Your task to perform on an android device: move an email to a new category in the gmail app Image 0: 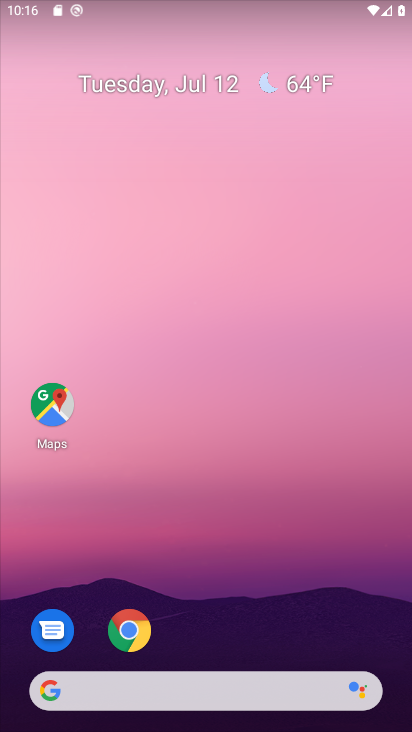
Step 0: drag from (224, 668) to (221, 124)
Your task to perform on an android device: move an email to a new category in the gmail app Image 1: 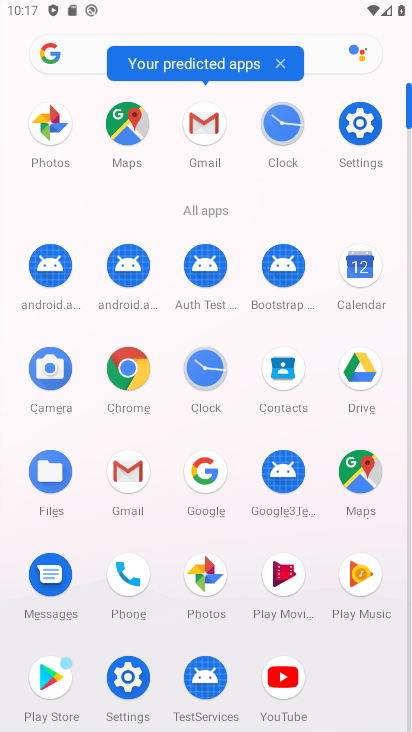
Step 1: click (120, 488)
Your task to perform on an android device: move an email to a new category in the gmail app Image 2: 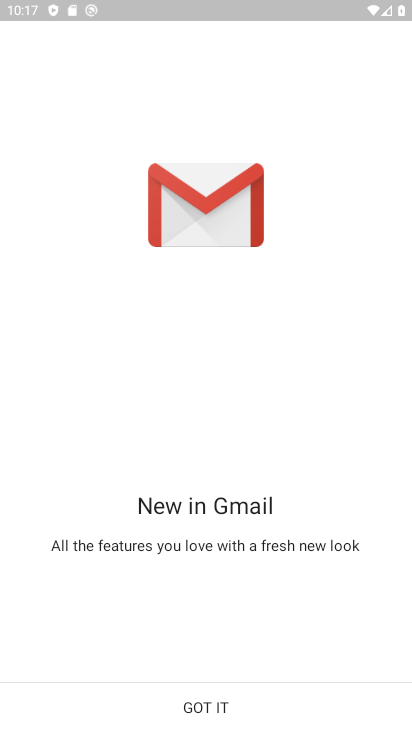
Step 2: click (245, 720)
Your task to perform on an android device: move an email to a new category in the gmail app Image 3: 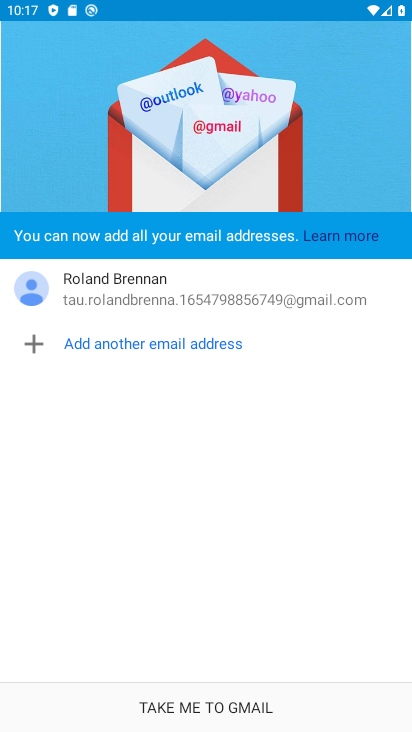
Step 3: click (213, 703)
Your task to perform on an android device: move an email to a new category in the gmail app Image 4: 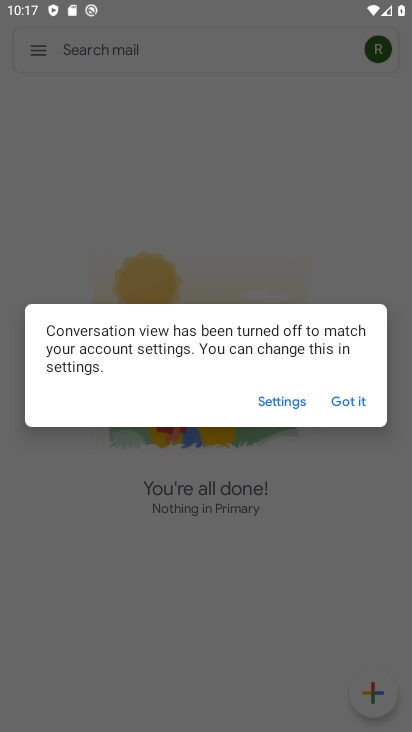
Step 4: click (333, 404)
Your task to perform on an android device: move an email to a new category in the gmail app Image 5: 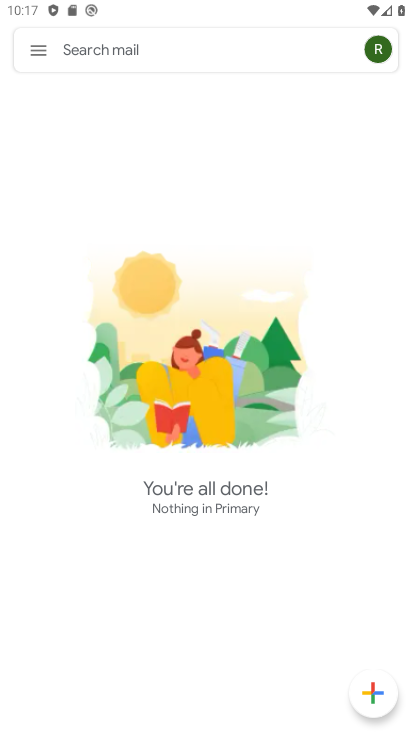
Step 5: task complete